Your task to perform on an android device: What's the weather? Image 0: 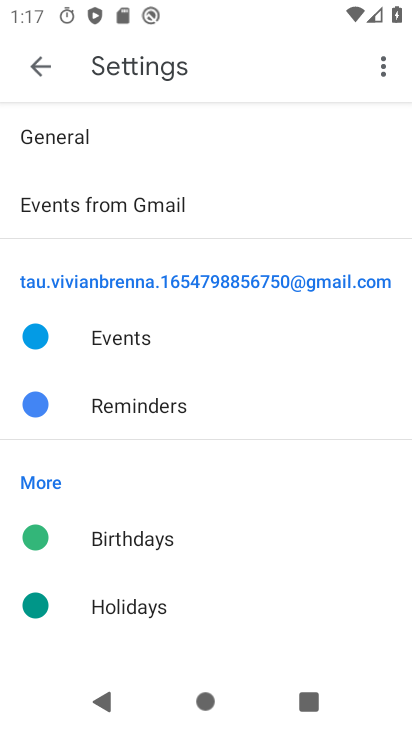
Step 0: press home button
Your task to perform on an android device: What's the weather? Image 1: 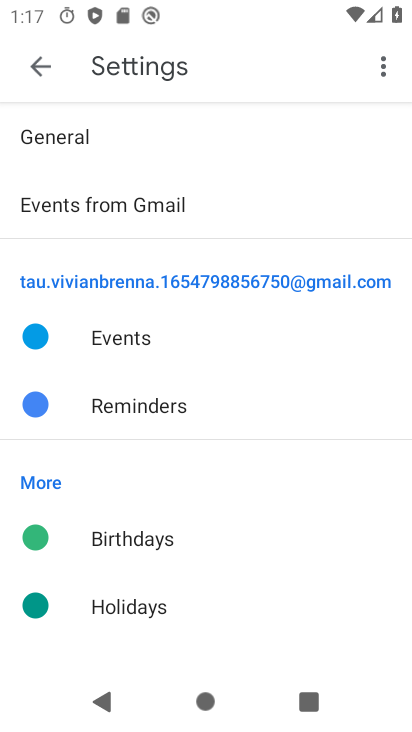
Step 1: press home button
Your task to perform on an android device: What's the weather? Image 2: 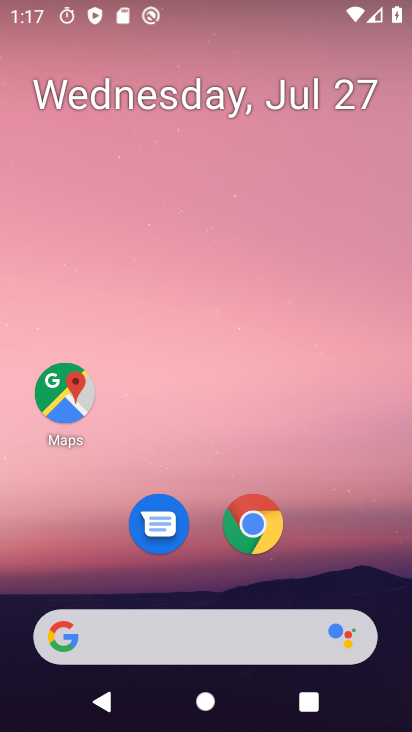
Step 2: click (218, 645)
Your task to perform on an android device: What's the weather? Image 3: 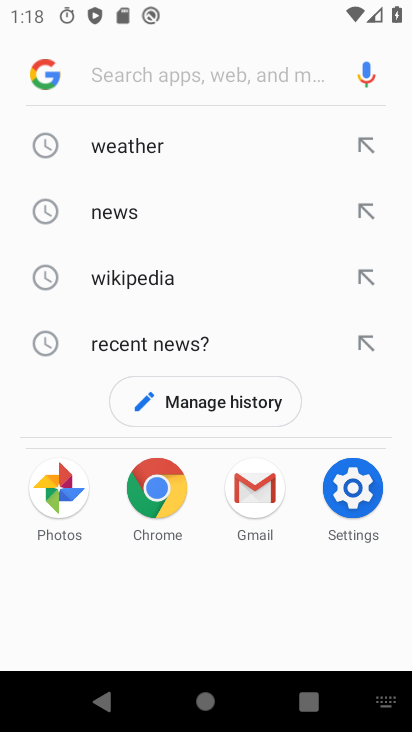
Step 3: click (143, 145)
Your task to perform on an android device: What's the weather? Image 4: 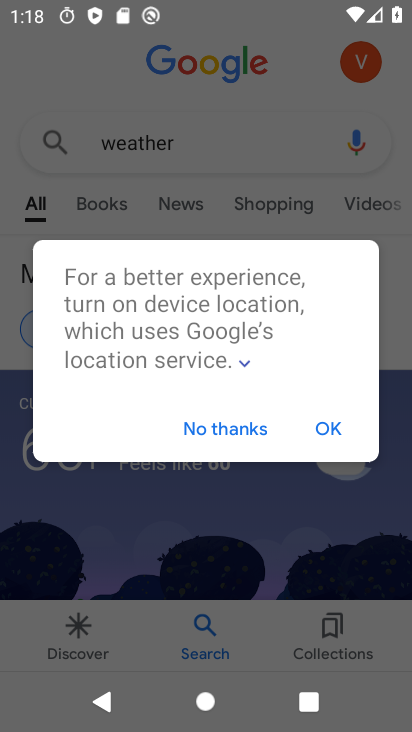
Step 4: click (317, 427)
Your task to perform on an android device: What's the weather? Image 5: 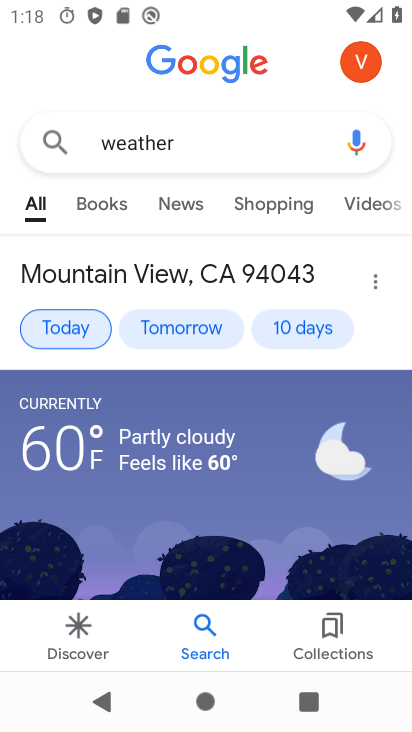
Step 5: click (86, 319)
Your task to perform on an android device: What's the weather? Image 6: 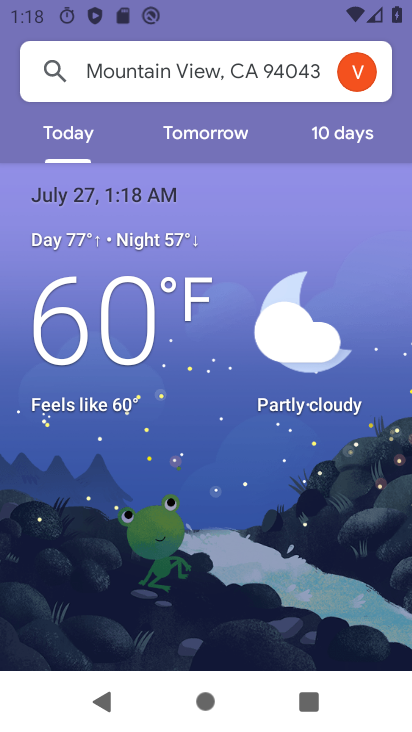
Step 6: task complete